Your task to perform on an android device: uninstall "Mercado Libre" Image 0: 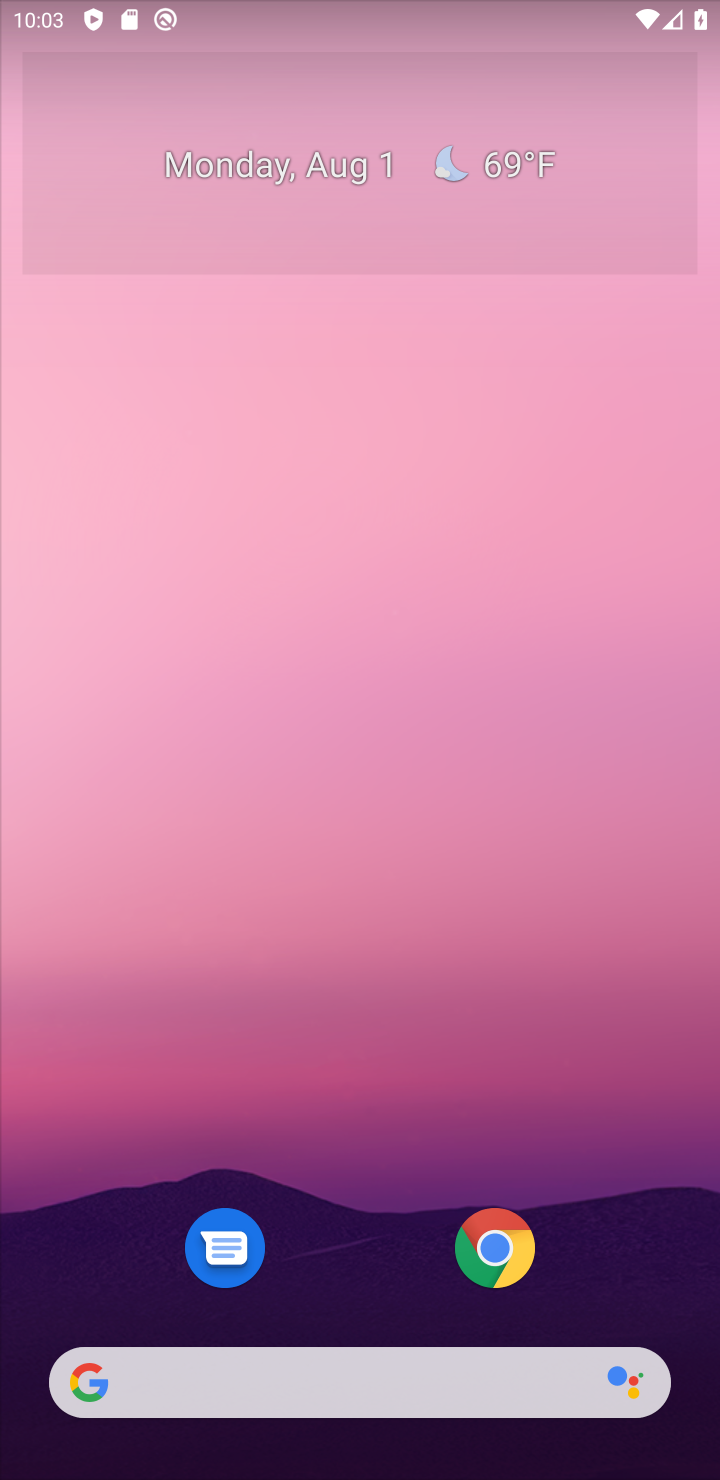
Step 0: drag from (388, 1315) to (391, 100)
Your task to perform on an android device: uninstall "Mercado Libre" Image 1: 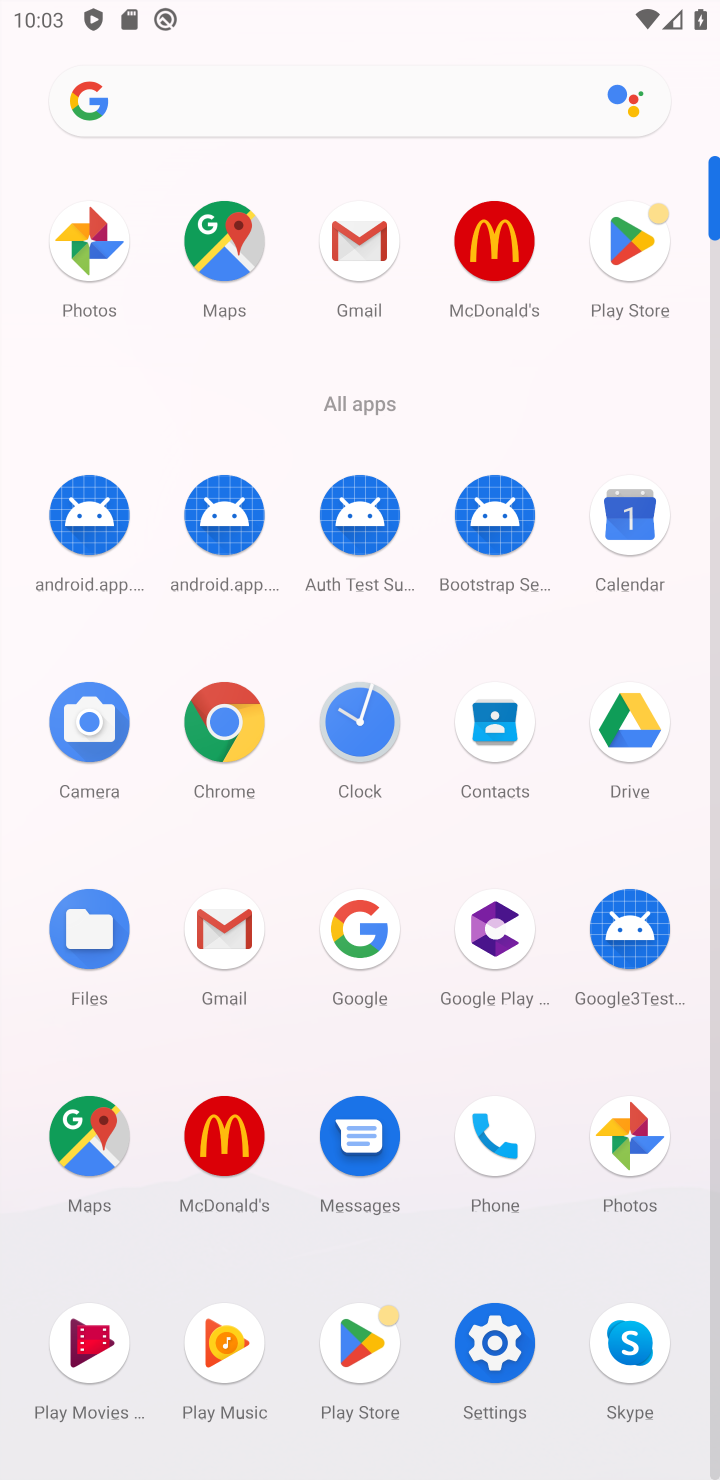
Step 1: click (648, 242)
Your task to perform on an android device: uninstall "Mercado Libre" Image 2: 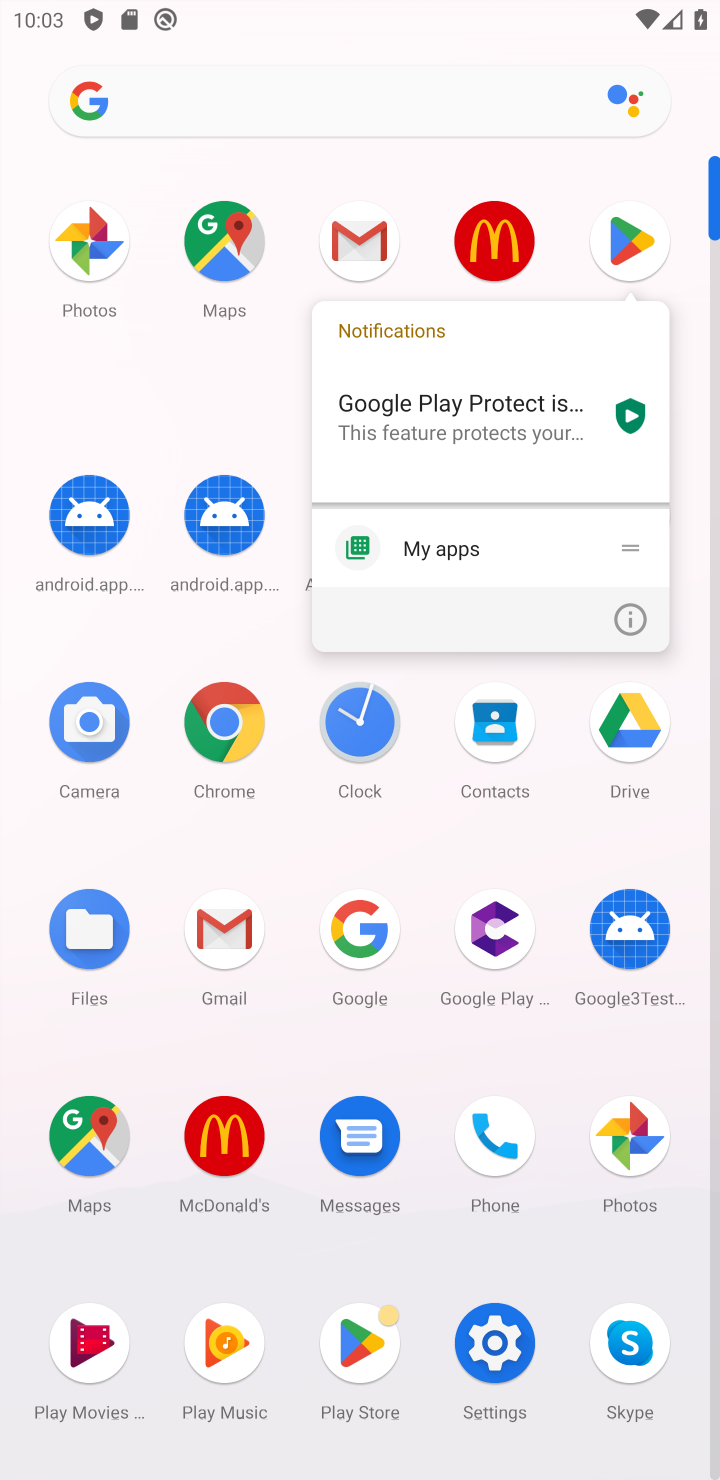
Step 2: click (347, 1351)
Your task to perform on an android device: uninstall "Mercado Libre" Image 3: 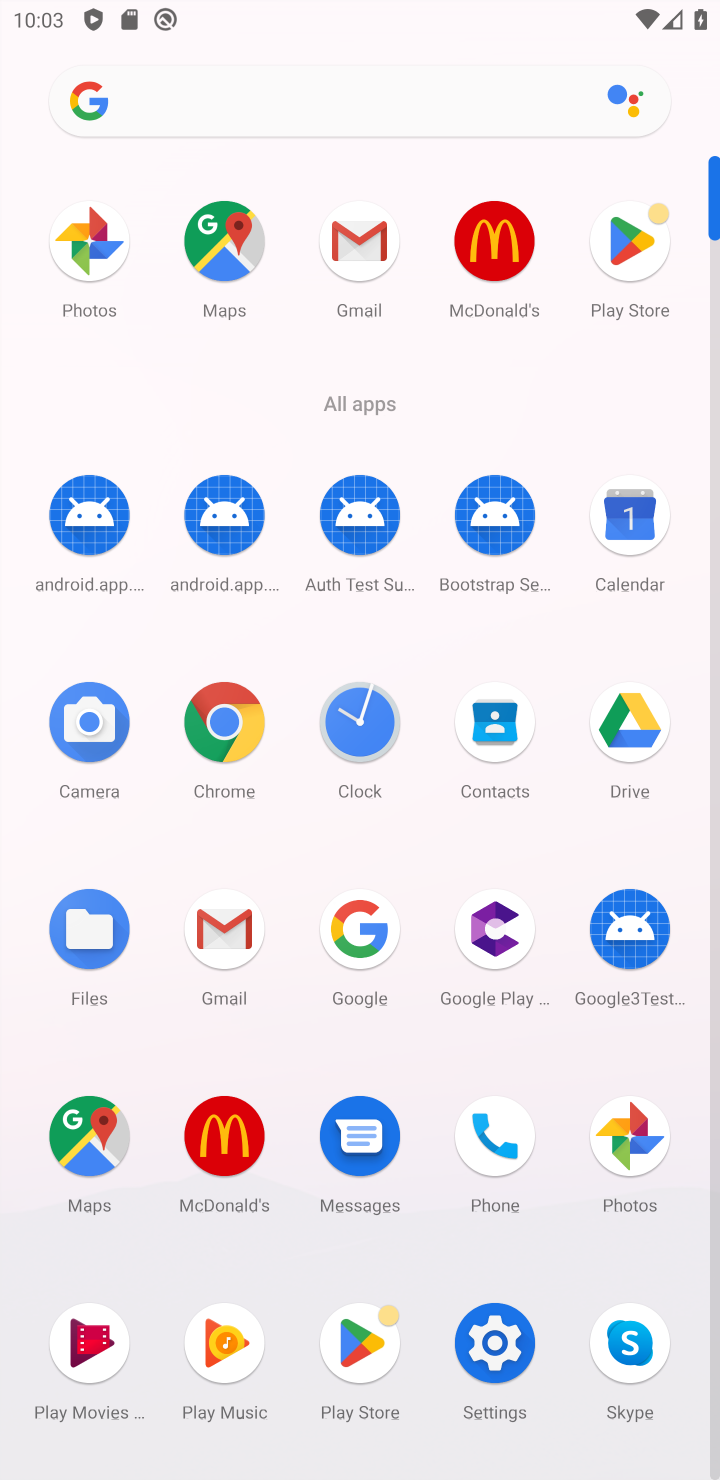
Step 3: click (352, 1346)
Your task to perform on an android device: uninstall "Mercado Libre" Image 4: 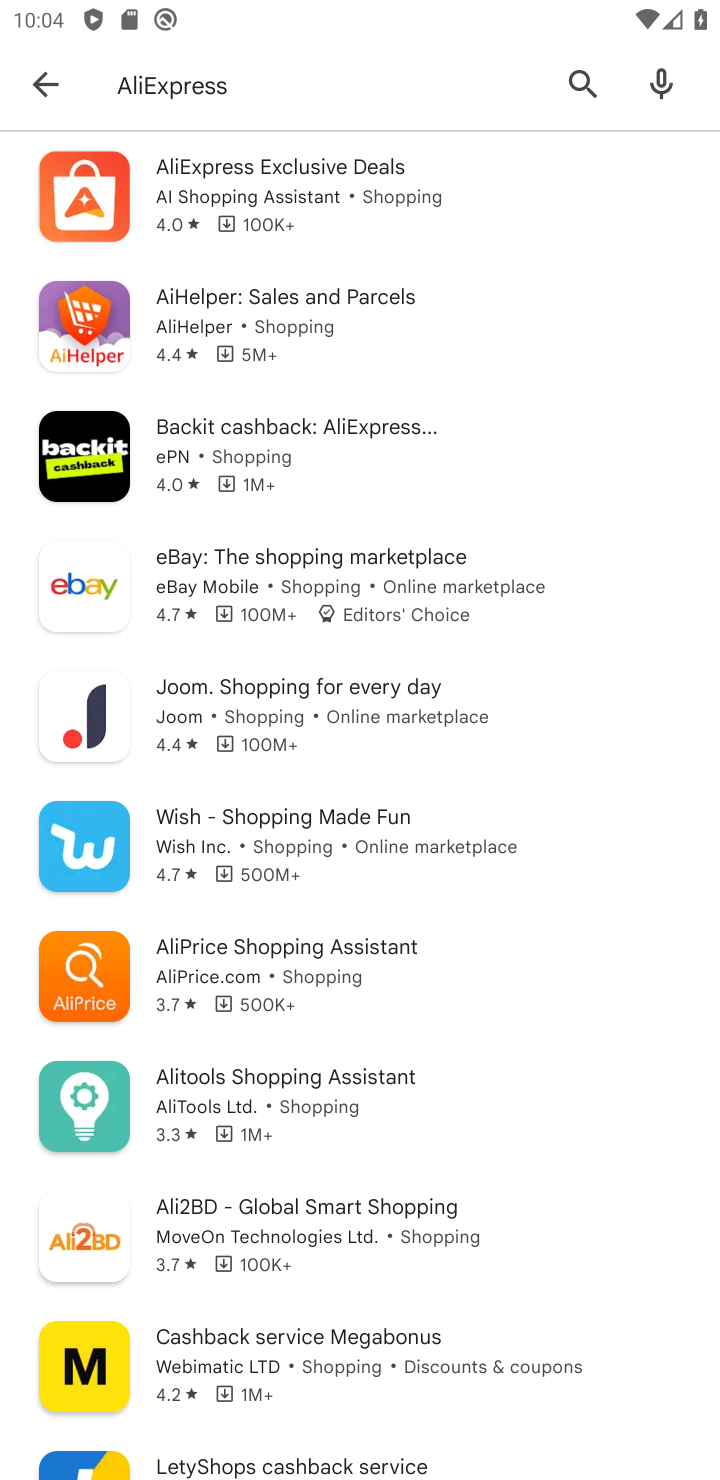
Step 4: click (487, 59)
Your task to perform on an android device: uninstall "Mercado Libre" Image 5: 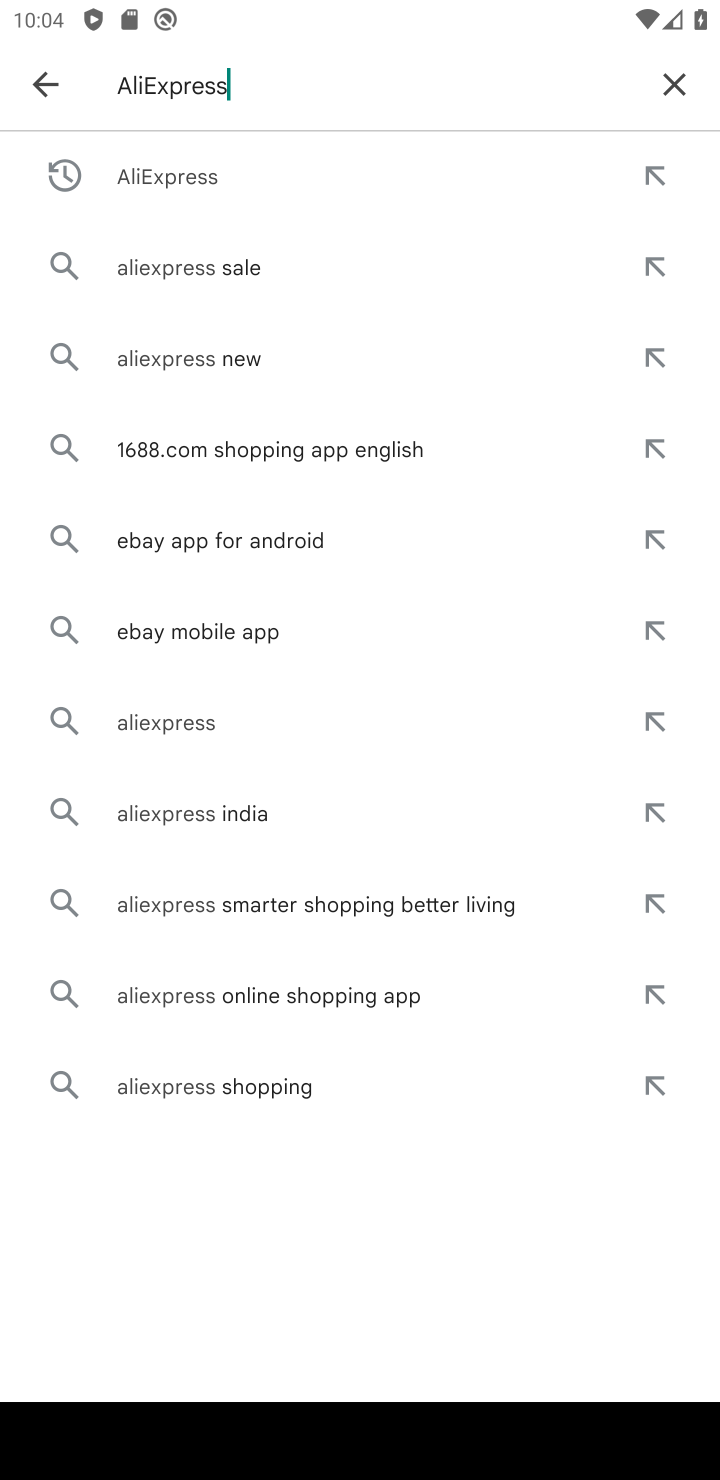
Step 5: click (672, 89)
Your task to perform on an android device: uninstall "Mercado Libre" Image 6: 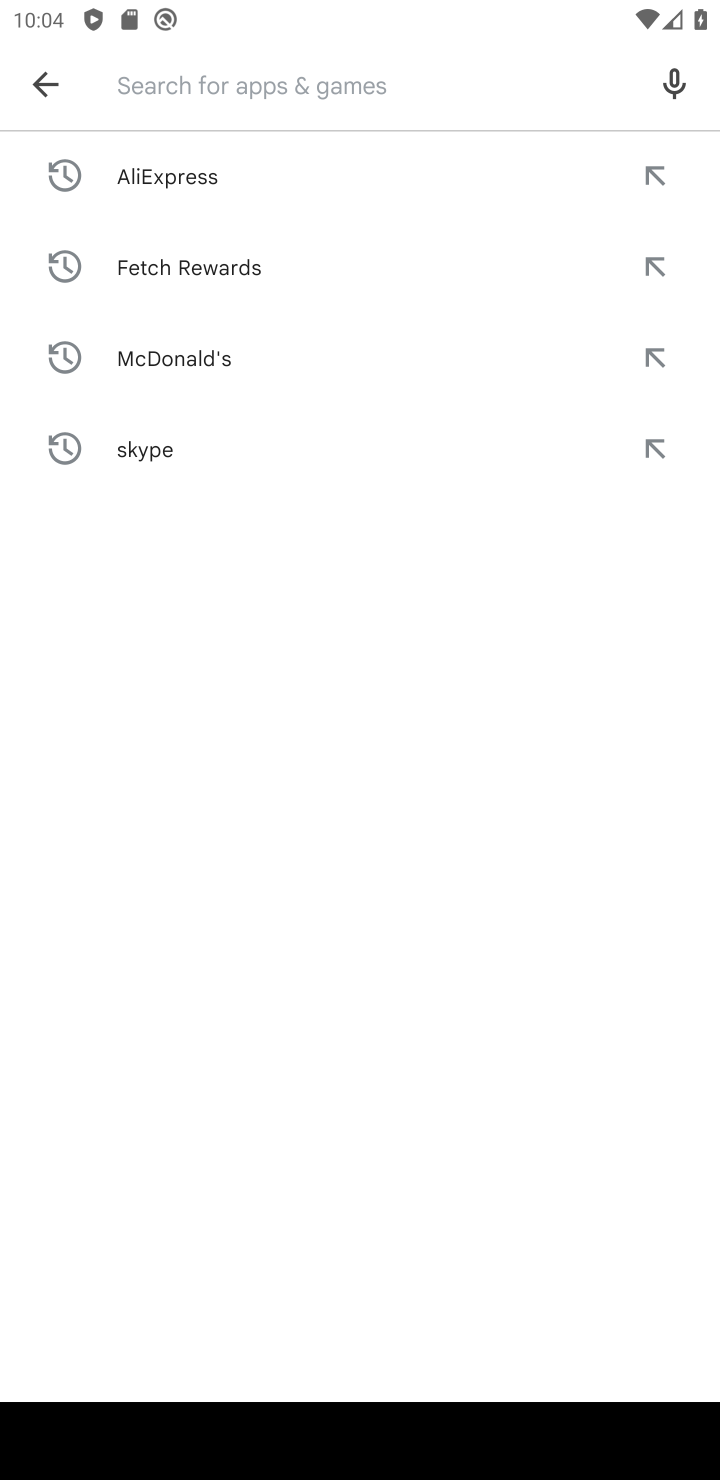
Step 6: type "Mecado Libre"
Your task to perform on an android device: uninstall "Mercado Libre" Image 7: 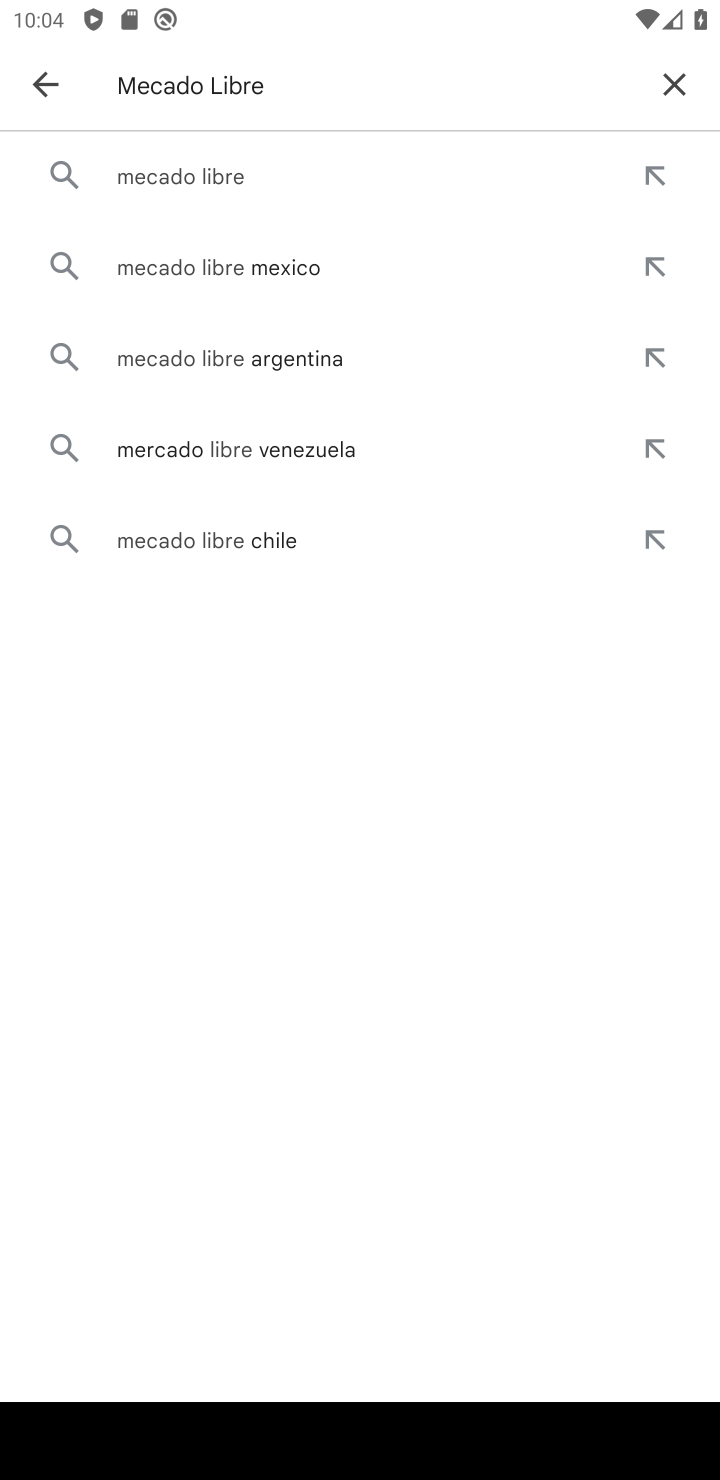
Step 7: press enter
Your task to perform on an android device: uninstall "Mercado Libre" Image 8: 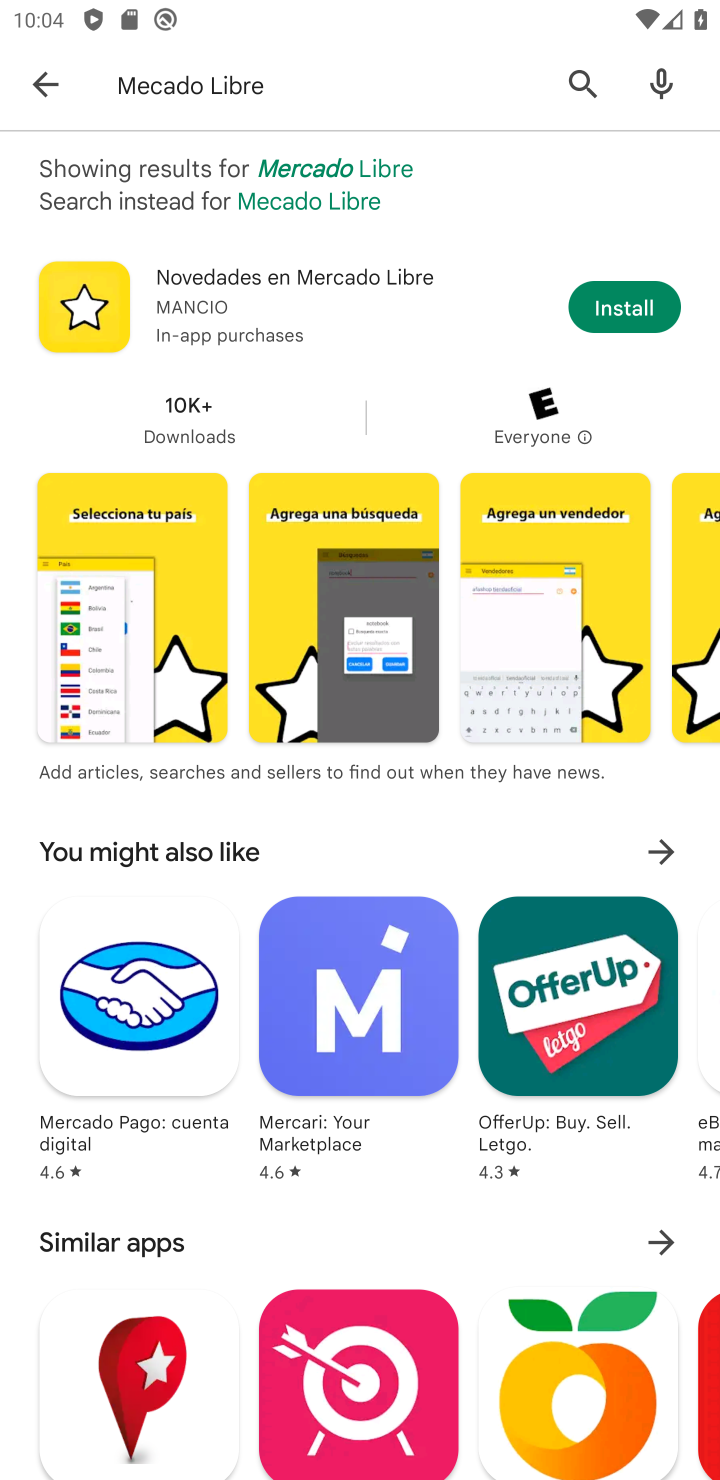
Step 8: click (216, 293)
Your task to perform on an android device: uninstall "Mercado Libre" Image 9: 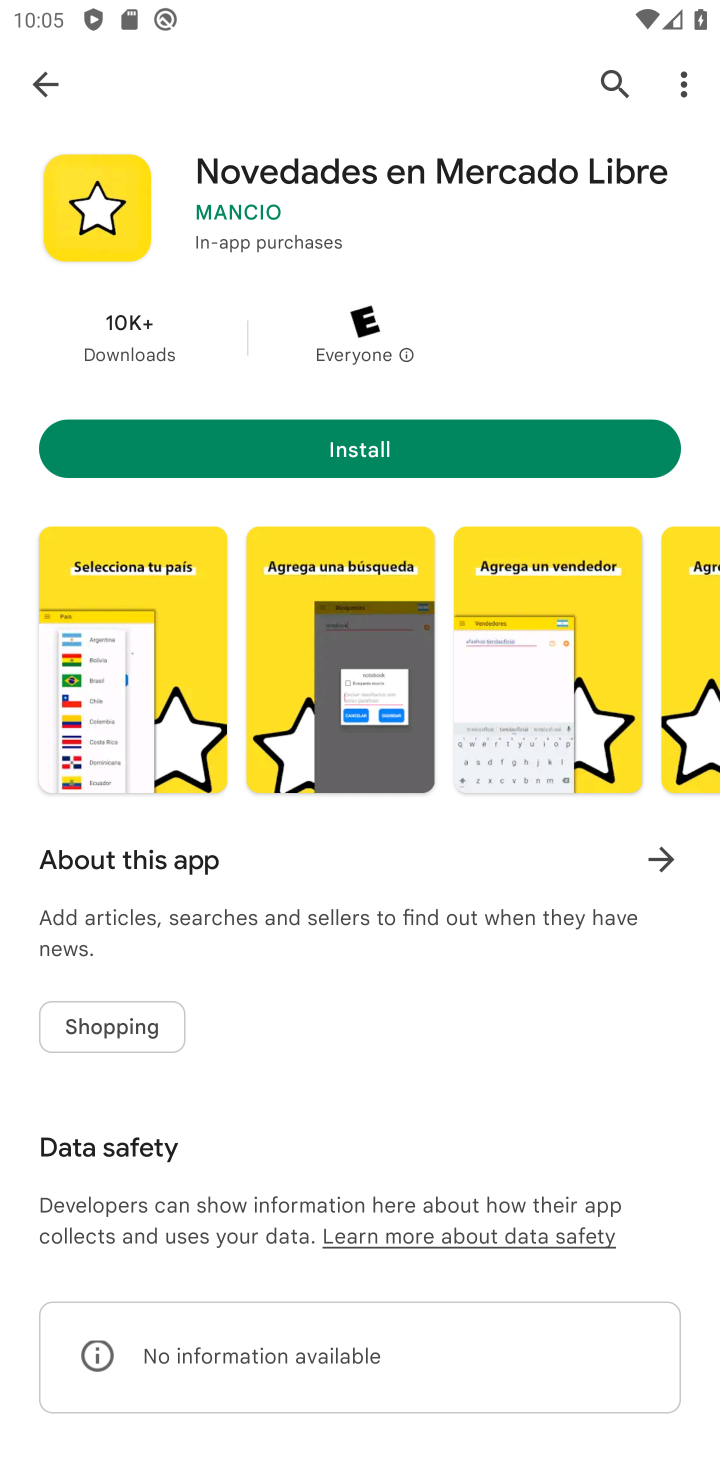
Step 9: task complete